Your task to perform on an android device: toggle show notifications on the lock screen Image 0: 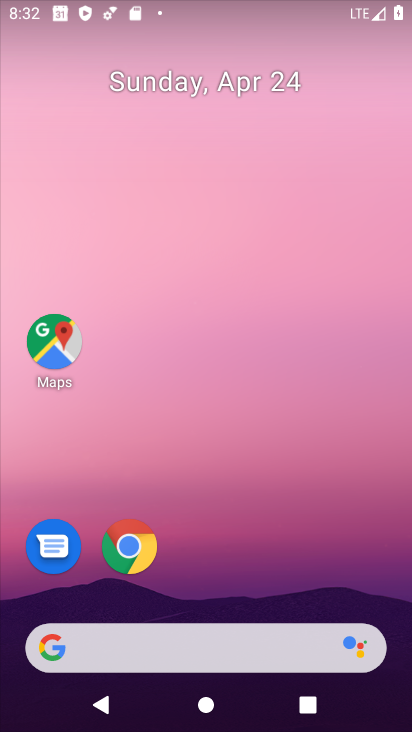
Step 0: drag from (311, 613) to (280, 19)
Your task to perform on an android device: toggle show notifications on the lock screen Image 1: 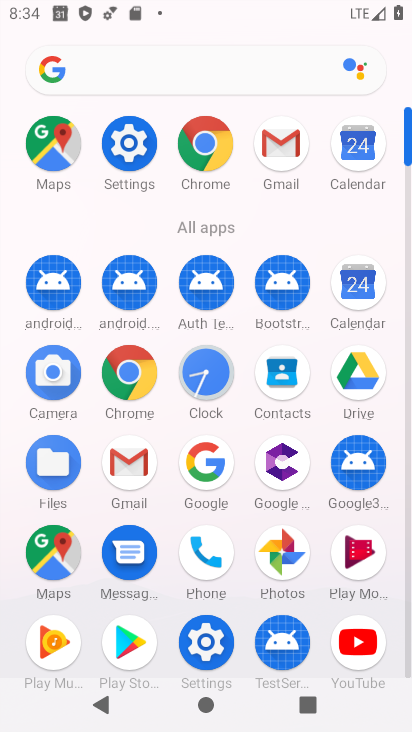
Step 1: click (218, 614)
Your task to perform on an android device: toggle show notifications on the lock screen Image 2: 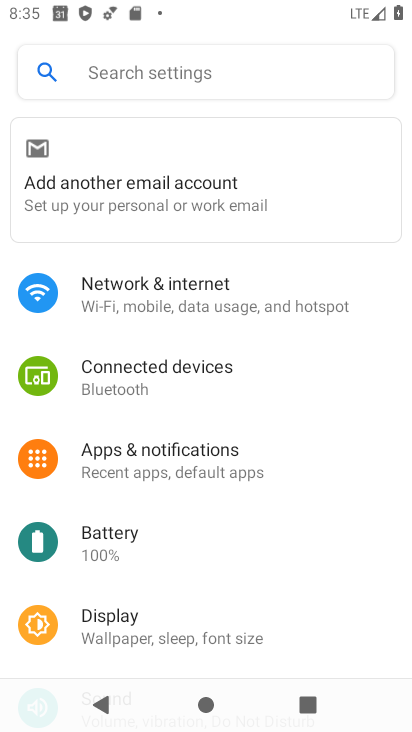
Step 2: click (170, 454)
Your task to perform on an android device: toggle show notifications on the lock screen Image 3: 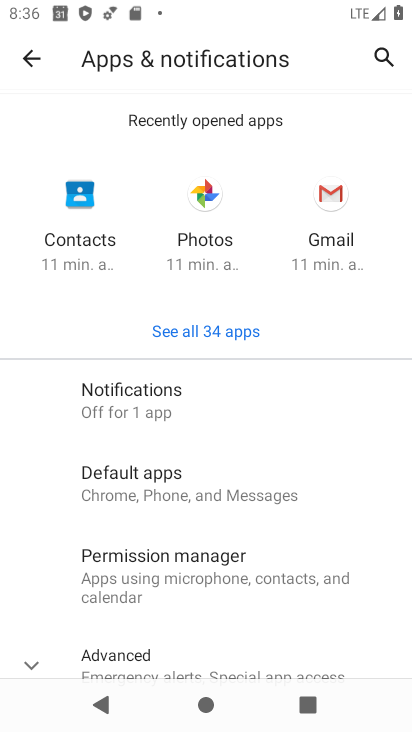
Step 3: drag from (278, 586) to (290, 399)
Your task to perform on an android device: toggle show notifications on the lock screen Image 4: 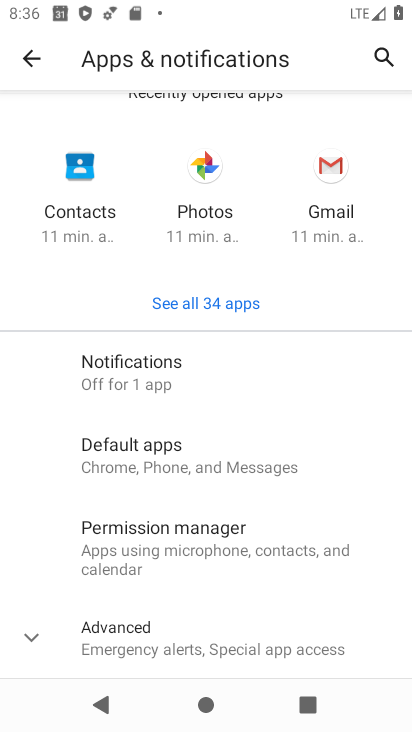
Step 4: click (197, 633)
Your task to perform on an android device: toggle show notifications on the lock screen Image 5: 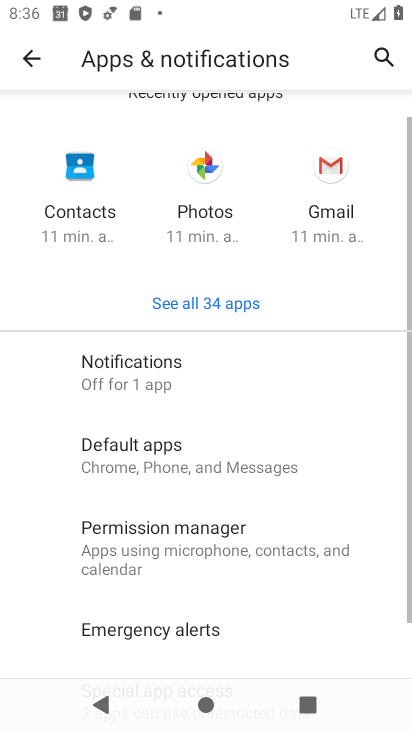
Step 5: click (194, 351)
Your task to perform on an android device: toggle show notifications on the lock screen Image 6: 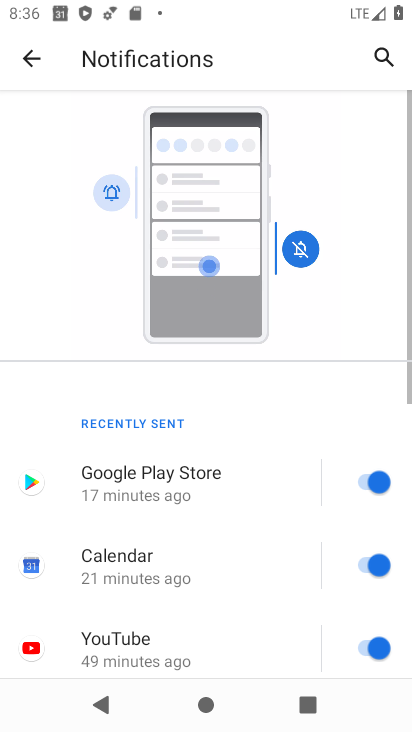
Step 6: drag from (176, 564) to (269, 223)
Your task to perform on an android device: toggle show notifications on the lock screen Image 7: 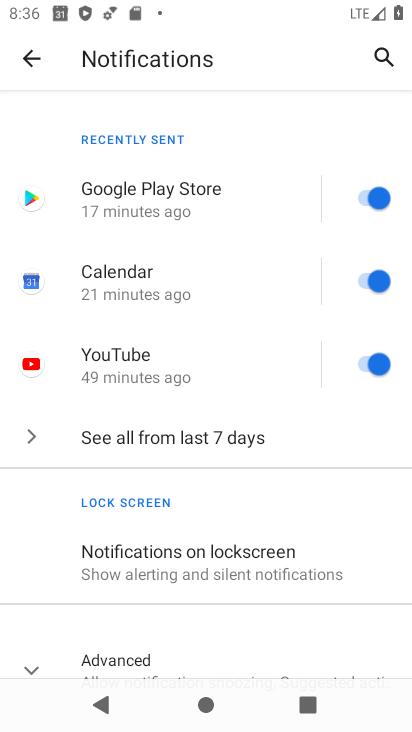
Step 7: click (236, 542)
Your task to perform on an android device: toggle show notifications on the lock screen Image 8: 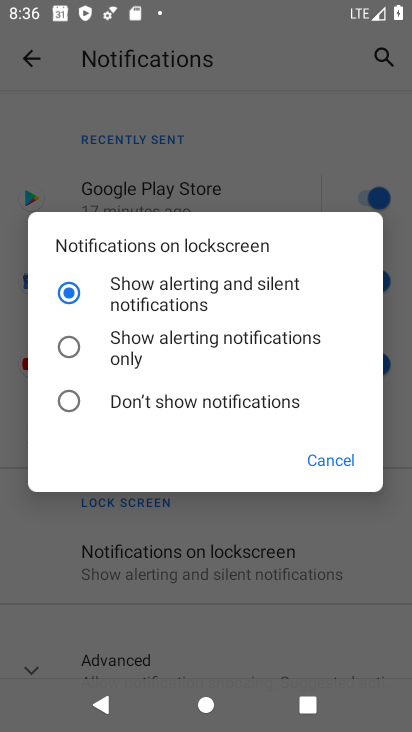
Step 8: click (150, 340)
Your task to perform on an android device: toggle show notifications on the lock screen Image 9: 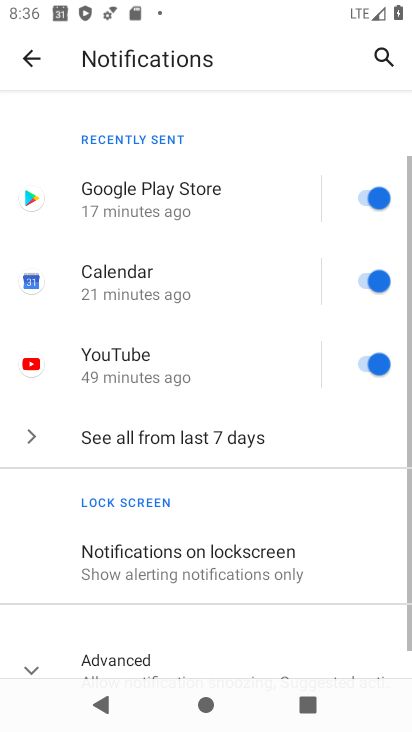
Step 9: task complete